Your task to perform on an android device: allow cookies in the chrome app Image 0: 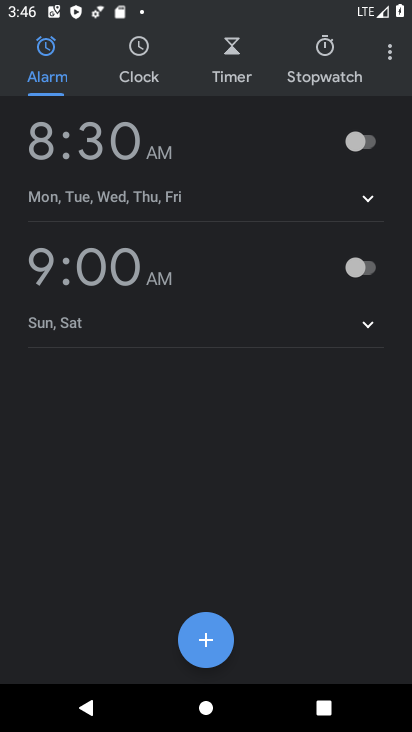
Step 0: press home button
Your task to perform on an android device: allow cookies in the chrome app Image 1: 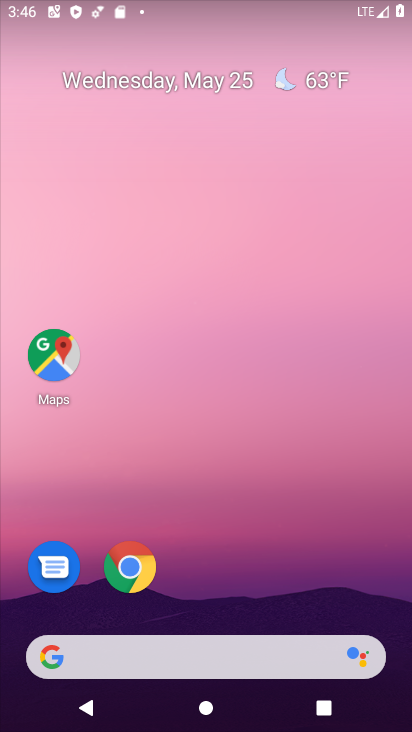
Step 1: drag from (244, 513) to (258, 76)
Your task to perform on an android device: allow cookies in the chrome app Image 2: 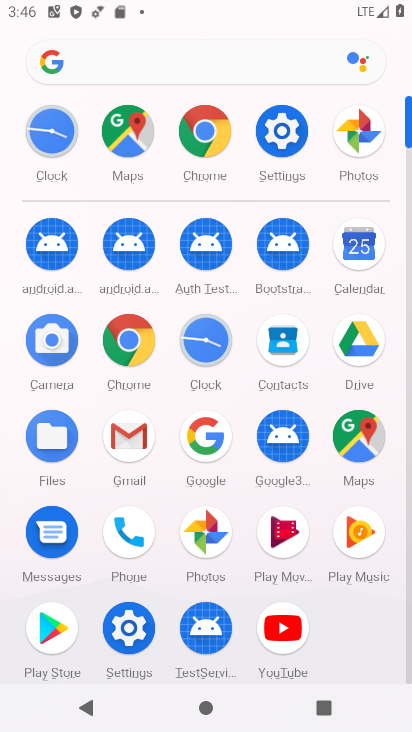
Step 2: click (136, 343)
Your task to perform on an android device: allow cookies in the chrome app Image 3: 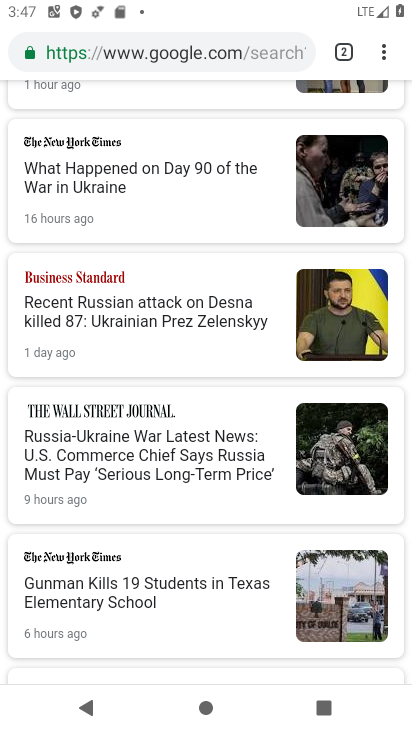
Step 3: drag from (382, 51) to (203, 566)
Your task to perform on an android device: allow cookies in the chrome app Image 4: 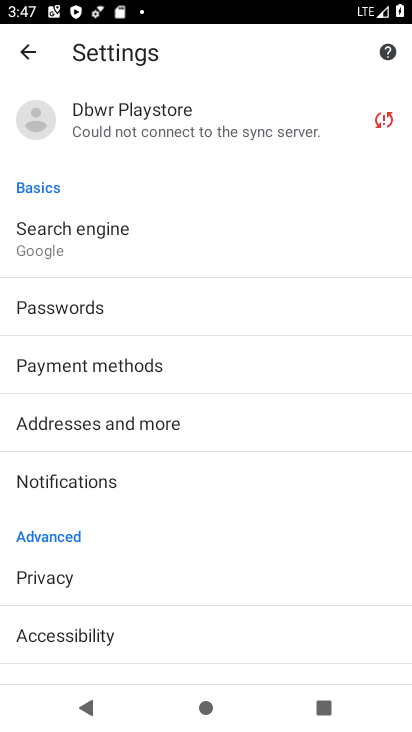
Step 4: drag from (141, 579) to (164, 270)
Your task to perform on an android device: allow cookies in the chrome app Image 5: 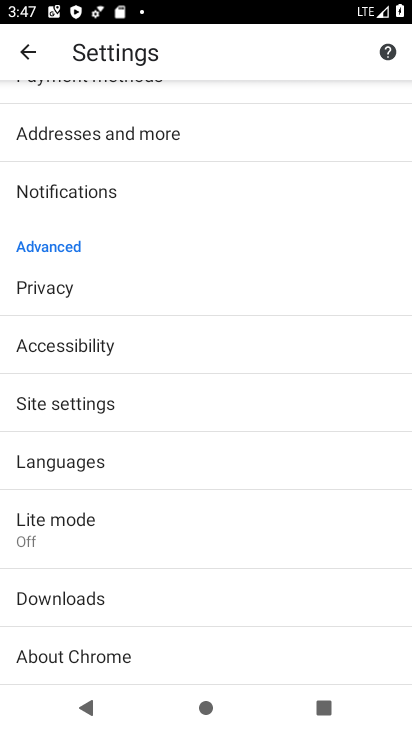
Step 5: click (77, 404)
Your task to perform on an android device: allow cookies in the chrome app Image 6: 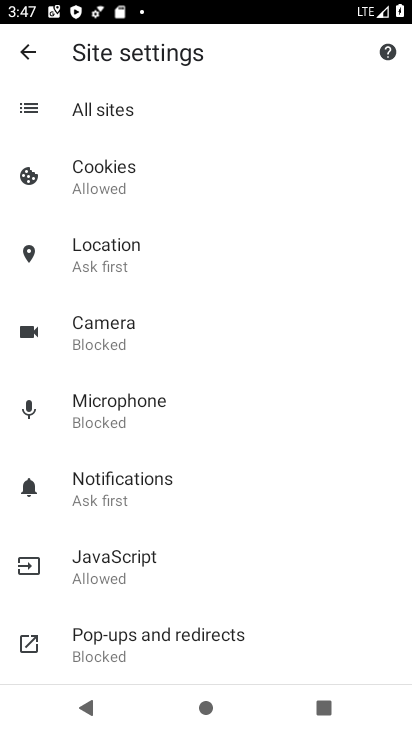
Step 6: click (103, 179)
Your task to perform on an android device: allow cookies in the chrome app Image 7: 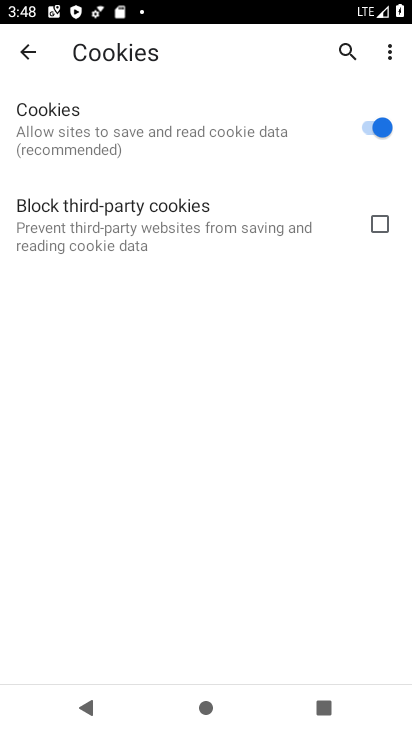
Step 7: task complete